Your task to perform on an android device: delete location history Image 0: 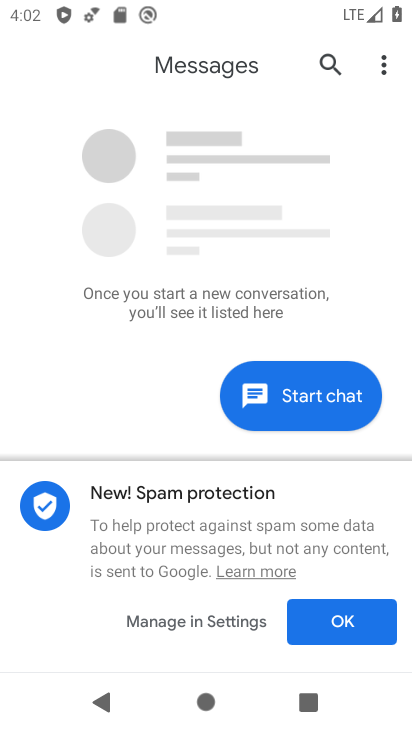
Step 0: press home button
Your task to perform on an android device: delete location history Image 1: 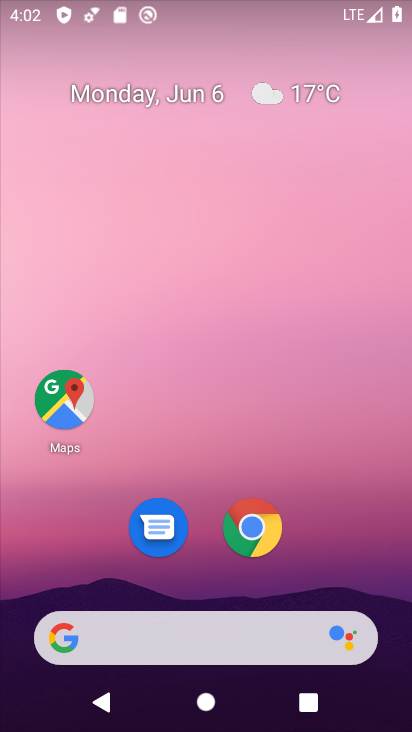
Step 1: drag from (335, 497) to (383, 134)
Your task to perform on an android device: delete location history Image 2: 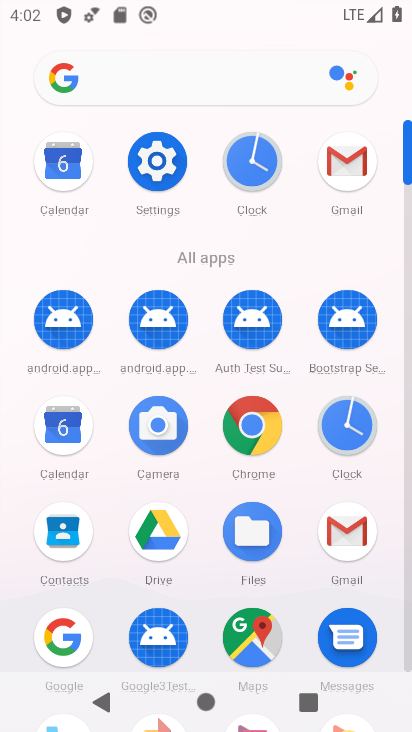
Step 2: click (162, 168)
Your task to perform on an android device: delete location history Image 3: 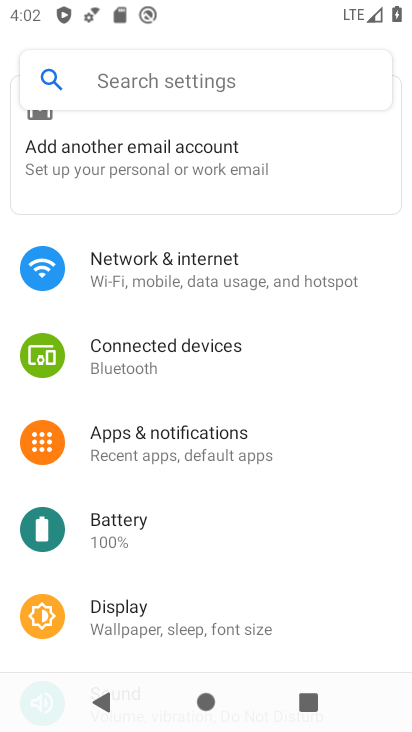
Step 3: drag from (367, 504) to (367, 220)
Your task to perform on an android device: delete location history Image 4: 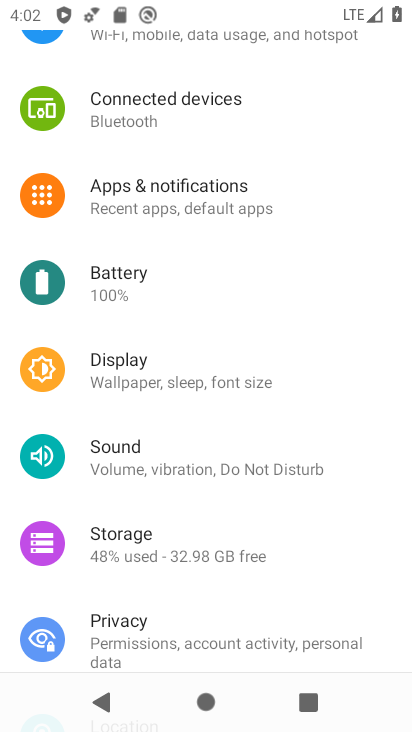
Step 4: drag from (359, 362) to (409, 205)
Your task to perform on an android device: delete location history Image 5: 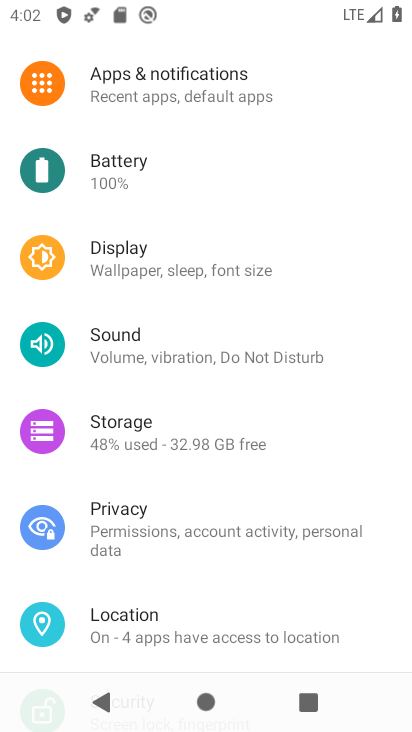
Step 5: click (218, 616)
Your task to perform on an android device: delete location history Image 6: 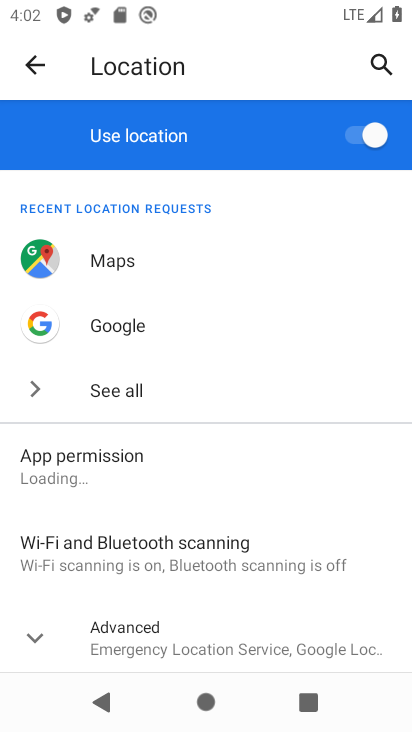
Step 6: click (224, 622)
Your task to perform on an android device: delete location history Image 7: 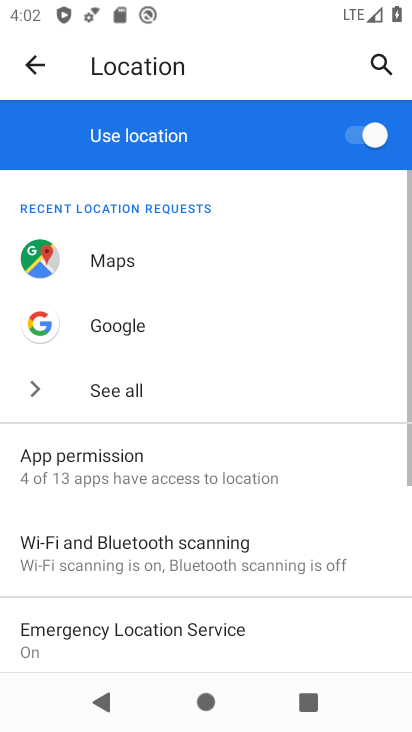
Step 7: drag from (302, 640) to (368, 269)
Your task to perform on an android device: delete location history Image 8: 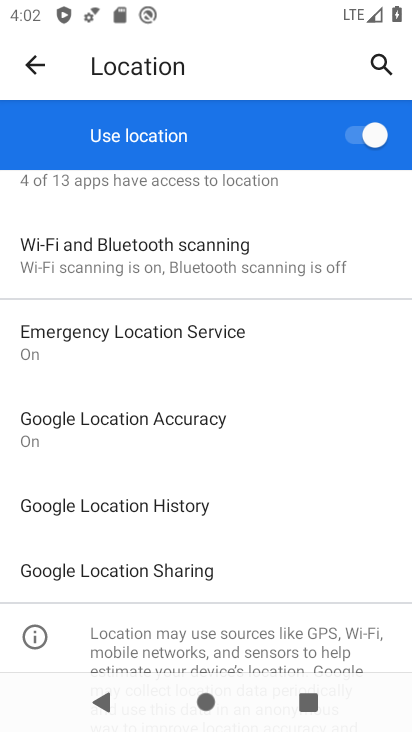
Step 8: click (194, 497)
Your task to perform on an android device: delete location history Image 9: 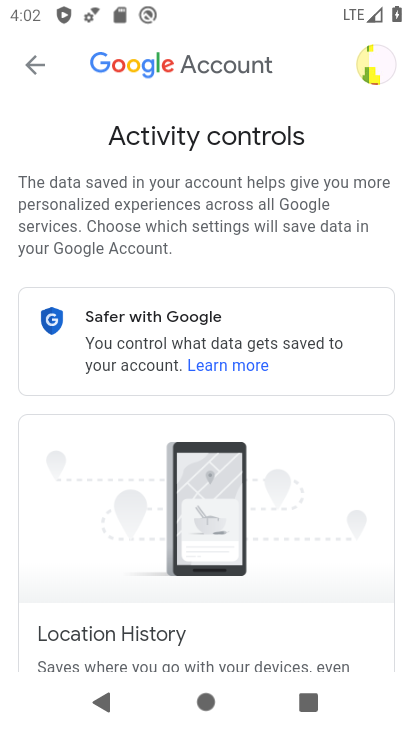
Step 9: drag from (333, 554) to (334, 227)
Your task to perform on an android device: delete location history Image 10: 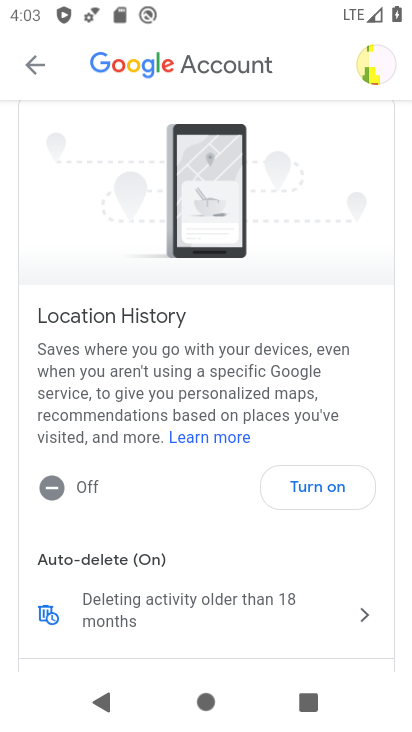
Step 10: click (374, 601)
Your task to perform on an android device: delete location history Image 11: 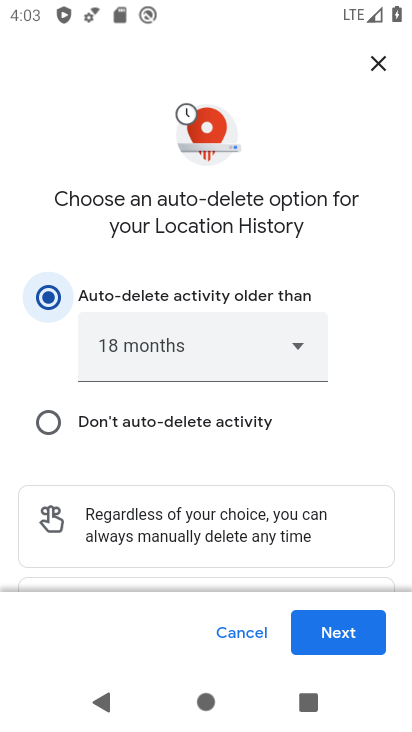
Step 11: click (363, 633)
Your task to perform on an android device: delete location history Image 12: 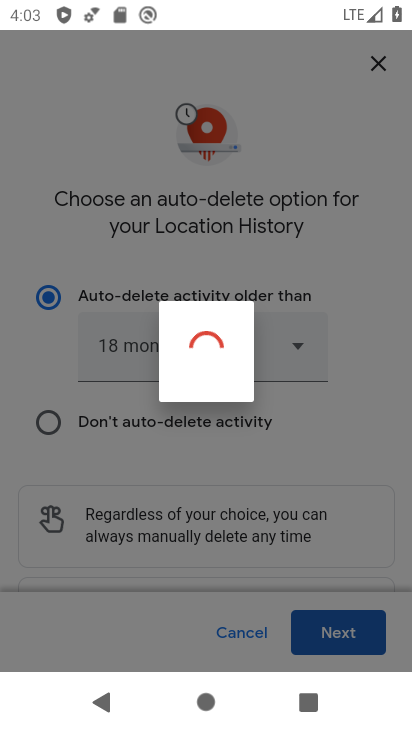
Step 12: click (363, 633)
Your task to perform on an android device: delete location history Image 13: 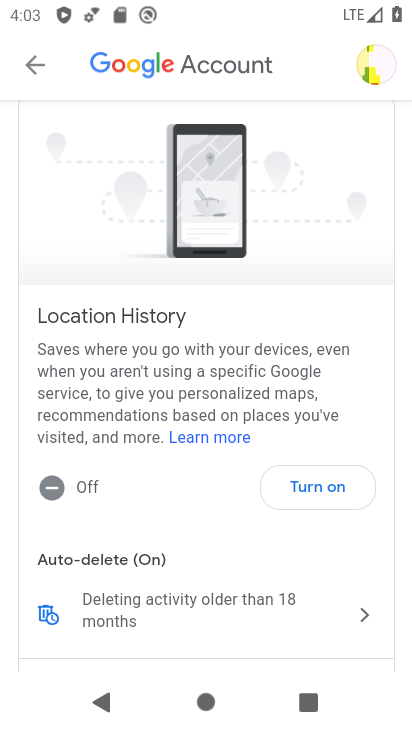
Step 13: task complete